Your task to perform on an android device: Do I have any events tomorrow? Image 0: 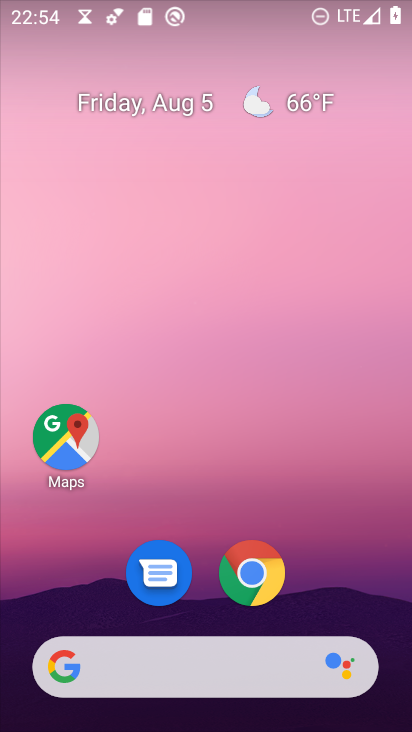
Step 0: drag from (202, 666) to (256, 83)
Your task to perform on an android device: Do I have any events tomorrow? Image 1: 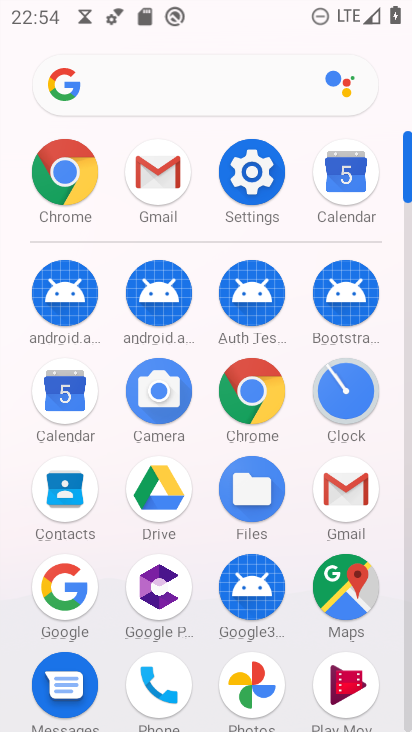
Step 1: click (345, 172)
Your task to perform on an android device: Do I have any events tomorrow? Image 2: 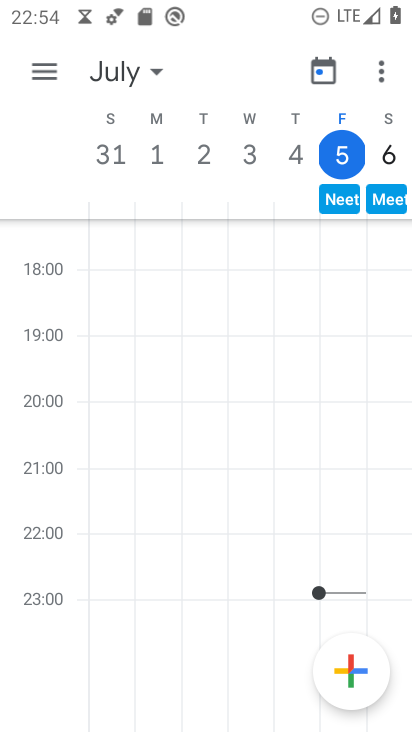
Step 2: click (328, 71)
Your task to perform on an android device: Do I have any events tomorrow? Image 3: 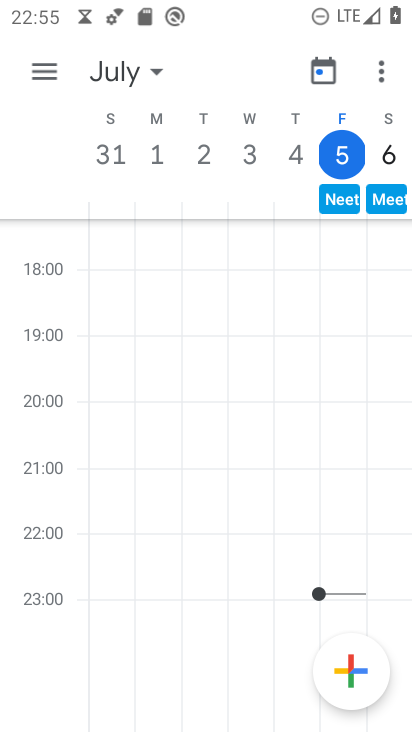
Step 3: click (328, 71)
Your task to perform on an android device: Do I have any events tomorrow? Image 4: 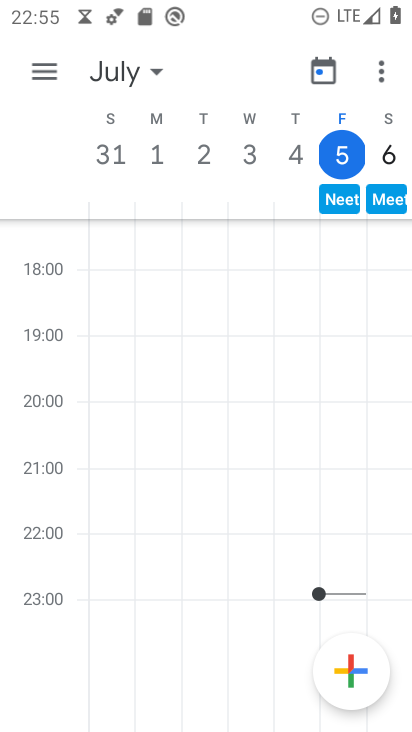
Step 4: click (328, 71)
Your task to perform on an android device: Do I have any events tomorrow? Image 5: 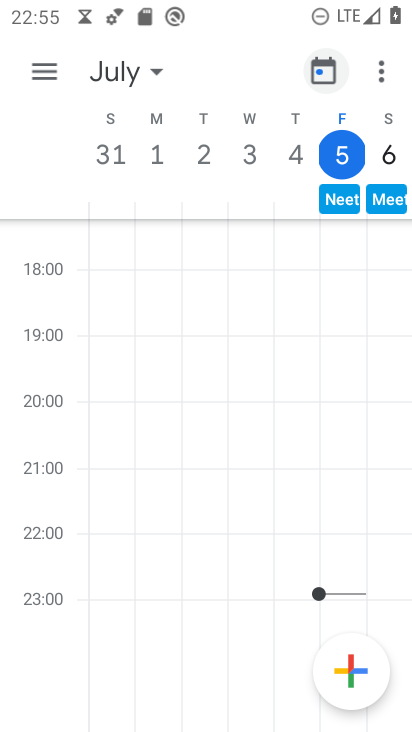
Step 5: click (328, 71)
Your task to perform on an android device: Do I have any events tomorrow? Image 6: 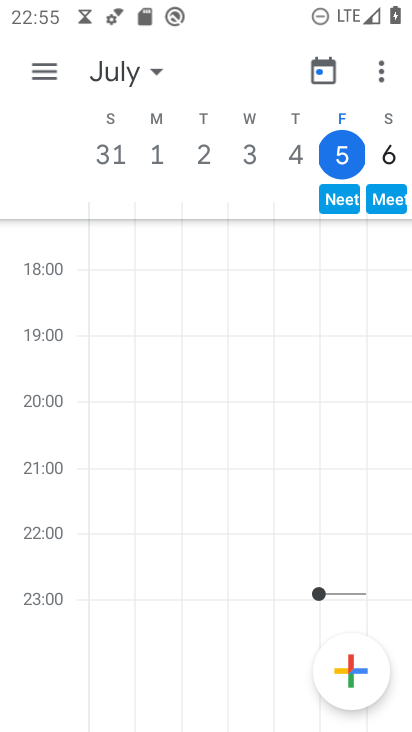
Step 6: click (159, 75)
Your task to perform on an android device: Do I have any events tomorrow? Image 7: 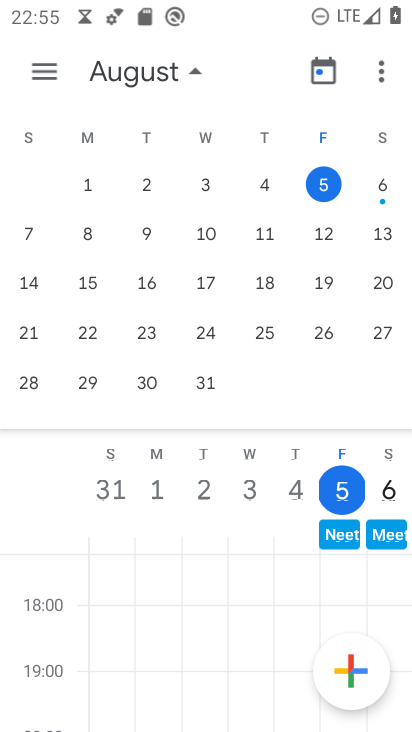
Step 7: click (382, 185)
Your task to perform on an android device: Do I have any events tomorrow? Image 8: 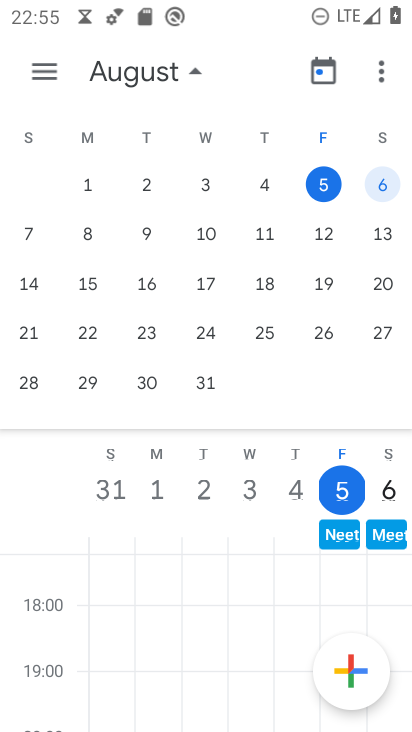
Step 8: click (44, 76)
Your task to perform on an android device: Do I have any events tomorrow? Image 9: 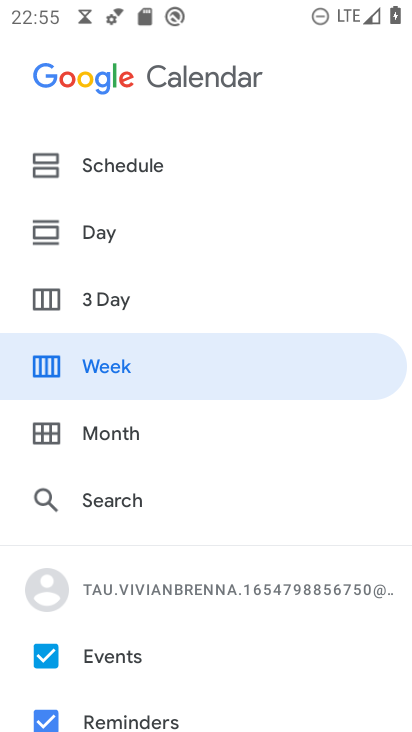
Step 9: click (124, 356)
Your task to perform on an android device: Do I have any events tomorrow? Image 10: 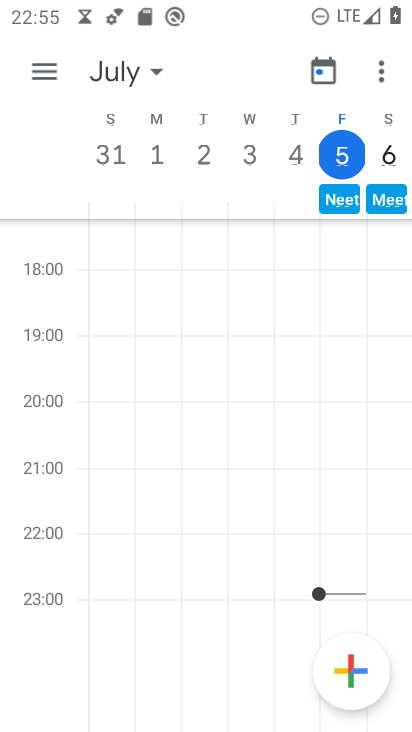
Step 10: task complete